Your task to perform on an android device: Search for pizza restaurants on Maps Image 0: 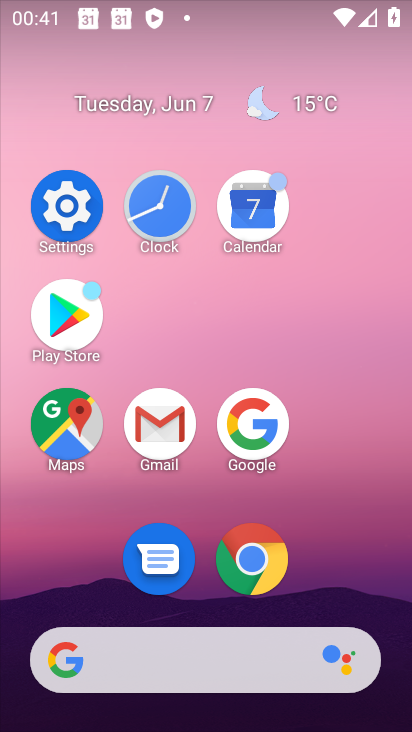
Step 0: click (76, 440)
Your task to perform on an android device: Search for pizza restaurants on Maps Image 1: 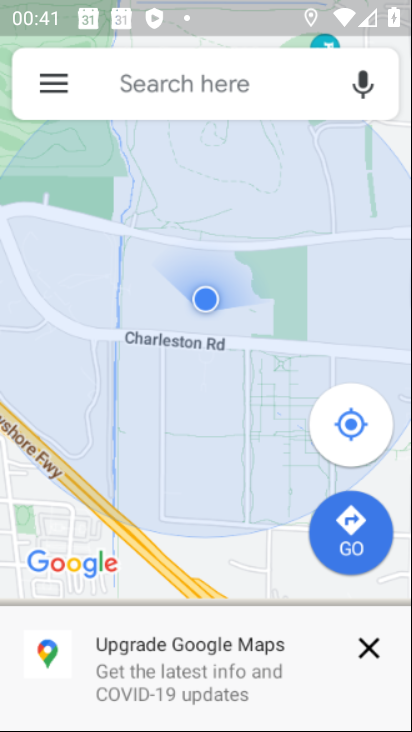
Step 1: click (219, 95)
Your task to perform on an android device: Search for pizza restaurants on Maps Image 2: 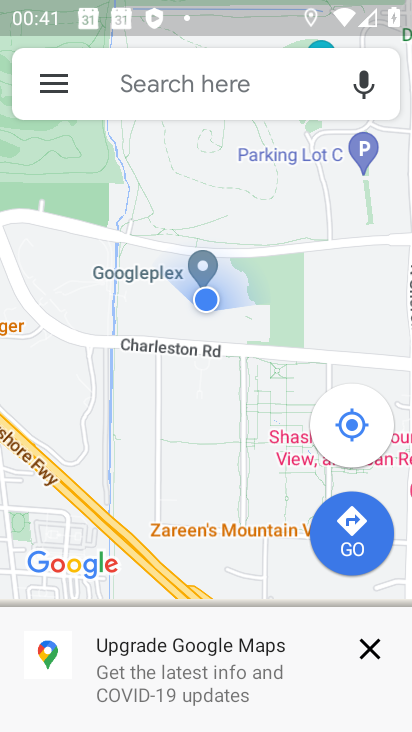
Step 2: click (244, 82)
Your task to perform on an android device: Search for pizza restaurants on Maps Image 3: 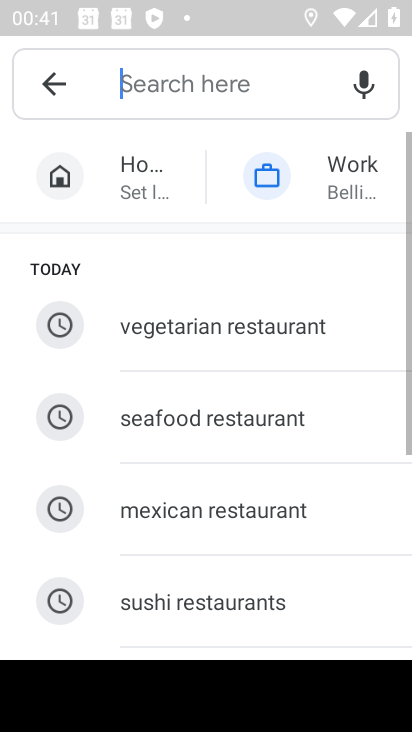
Step 3: drag from (216, 548) to (216, 198)
Your task to perform on an android device: Search for pizza restaurants on Maps Image 4: 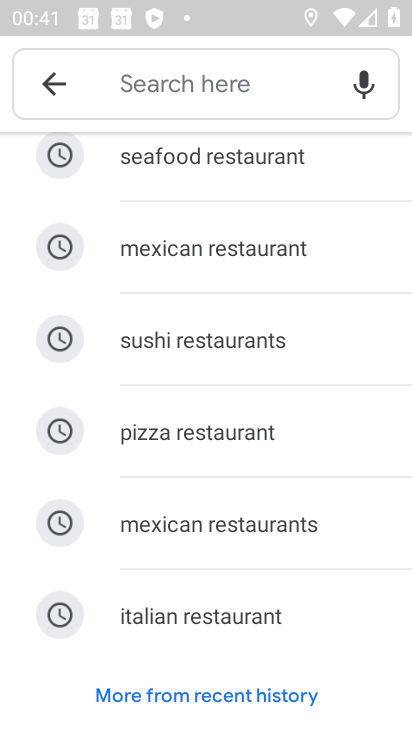
Step 4: click (234, 414)
Your task to perform on an android device: Search for pizza restaurants on Maps Image 5: 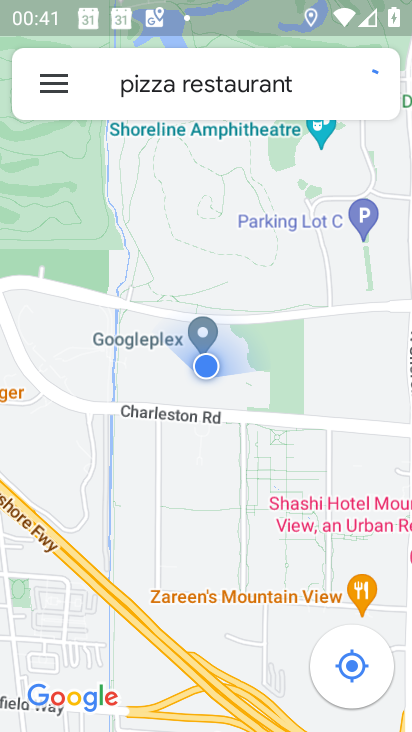
Step 5: task complete